Your task to perform on an android device: find photos in the google photos app Image 0: 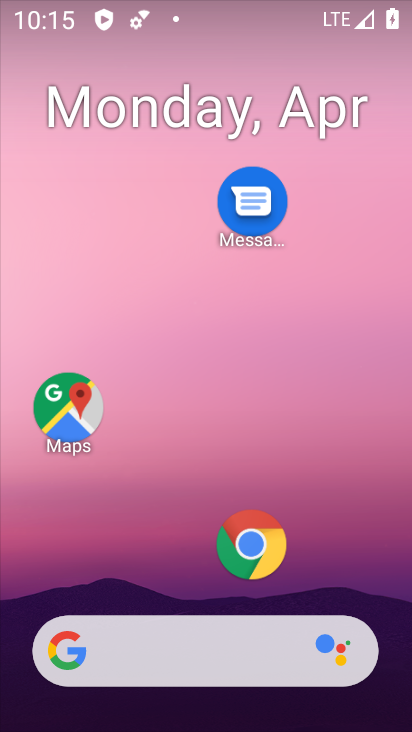
Step 0: press home button
Your task to perform on an android device: find photos in the google photos app Image 1: 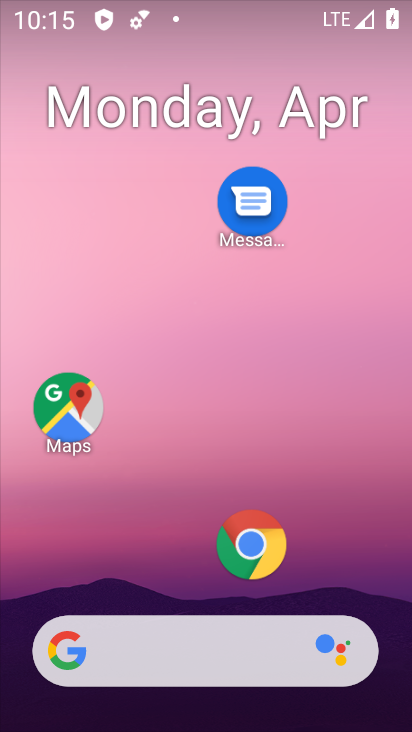
Step 1: drag from (190, 589) to (213, 64)
Your task to perform on an android device: find photos in the google photos app Image 2: 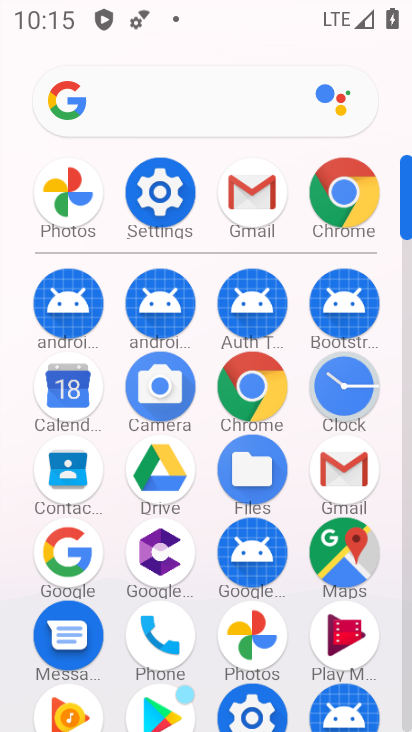
Step 2: click (251, 626)
Your task to perform on an android device: find photos in the google photos app Image 3: 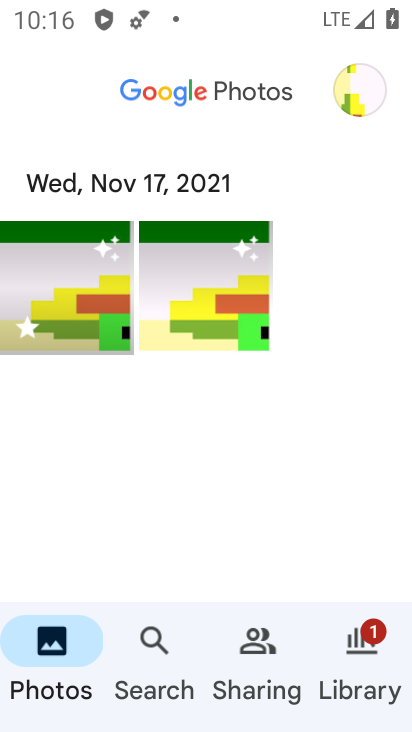
Step 3: click (83, 321)
Your task to perform on an android device: find photos in the google photos app Image 4: 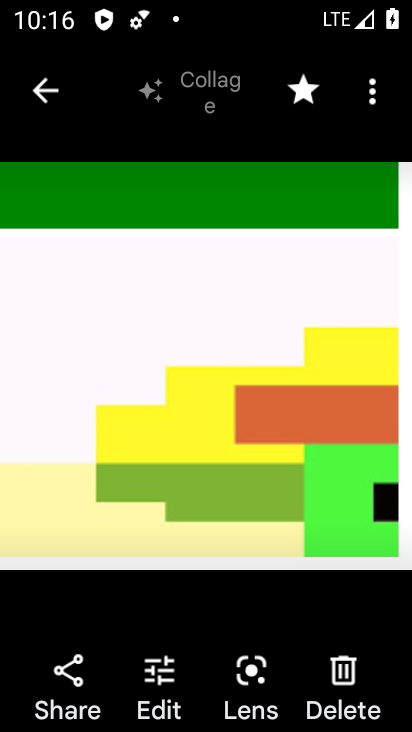
Step 4: task complete